Your task to perform on an android device: turn off airplane mode Image 0: 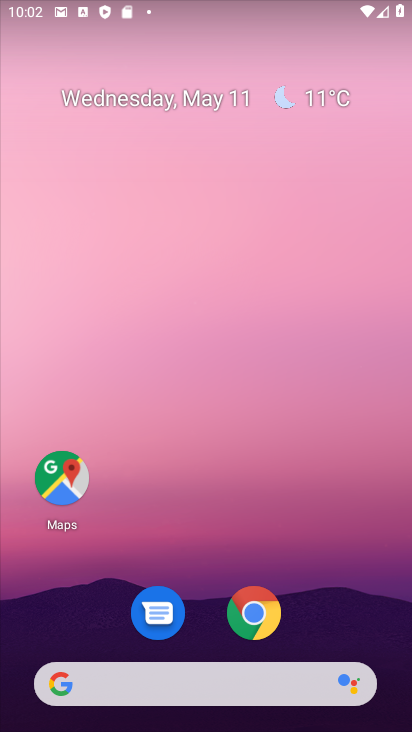
Step 0: drag from (218, 570) to (213, 204)
Your task to perform on an android device: turn off airplane mode Image 1: 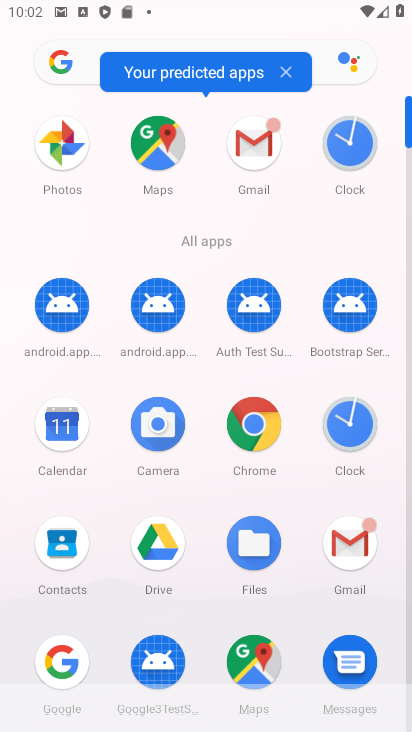
Step 1: drag from (128, 234) to (120, 84)
Your task to perform on an android device: turn off airplane mode Image 2: 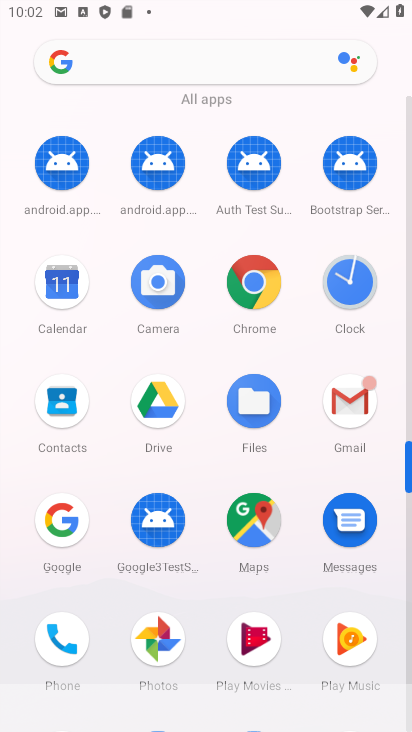
Step 2: drag from (208, 219) to (206, 44)
Your task to perform on an android device: turn off airplane mode Image 3: 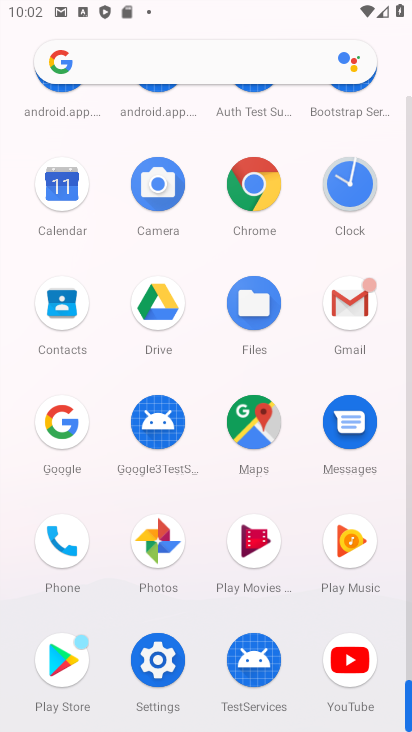
Step 3: click (146, 672)
Your task to perform on an android device: turn off airplane mode Image 4: 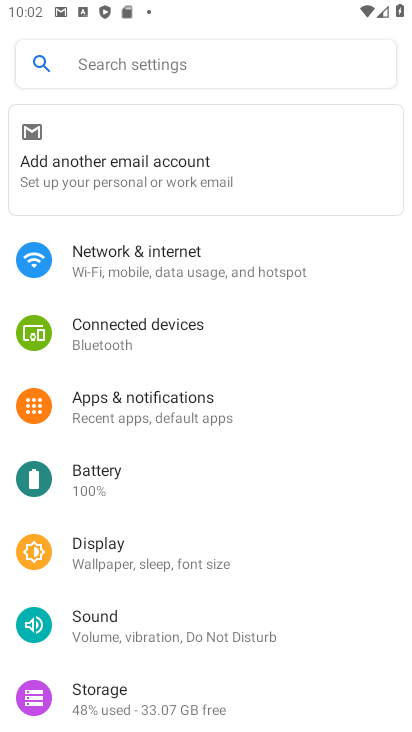
Step 4: click (195, 281)
Your task to perform on an android device: turn off airplane mode Image 5: 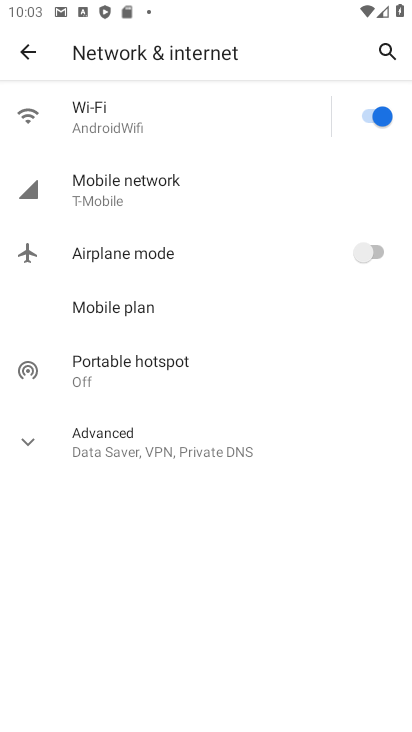
Step 5: task complete